Your task to perform on an android device: Open Wikipedia Image 0: 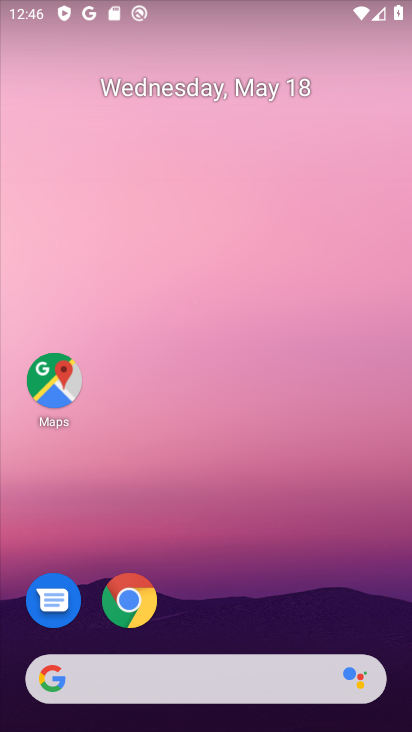
Step 0: click (127, 601)
Your task to perform on an android device: Open Wikipedia Image 1: 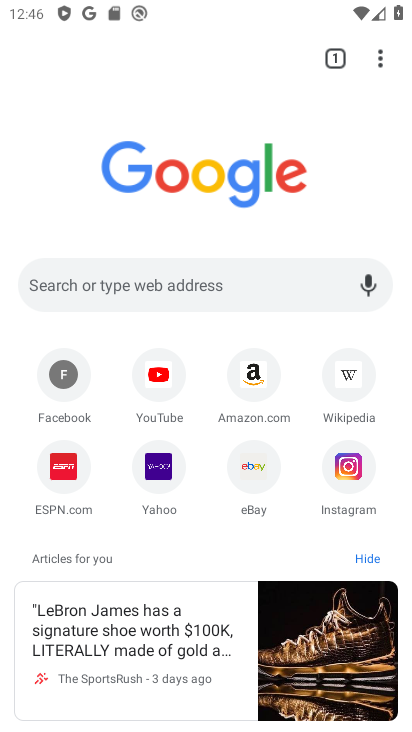
Step 1: click (114, 294)
Your task to perform on an android device: Open Wikipedia Image 2: 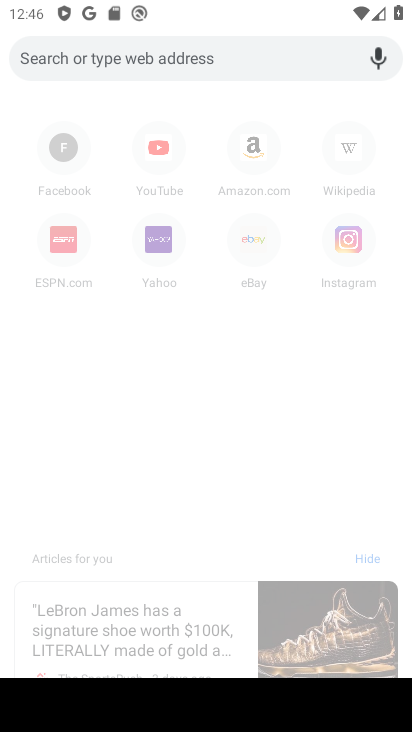
Step 2: type "wikipedia"
Your task to perform on an android device: Open Wikipedia Image 3: 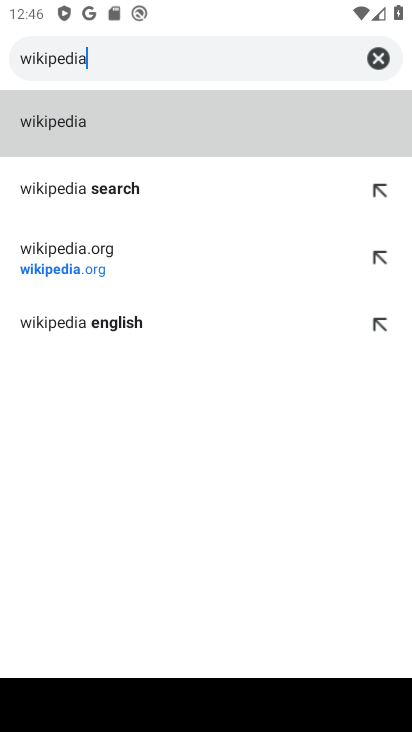
Step 3: click (154, 128)
Your task to perform on an android device: Open Wikipedia Image 4: 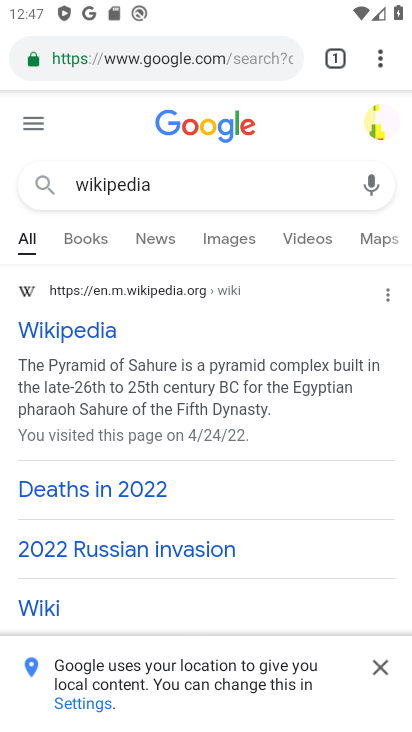
Step 4: task complete